Your task to perform on an android device: toggle show notifications on the lock screen Image 0: 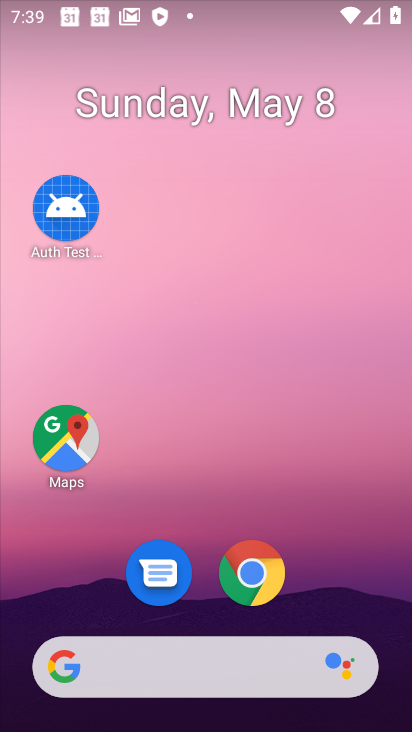
Step 0: click (159, 41)
Your task to perform on an android device: toggle show notifications on the lock screen Image 1: 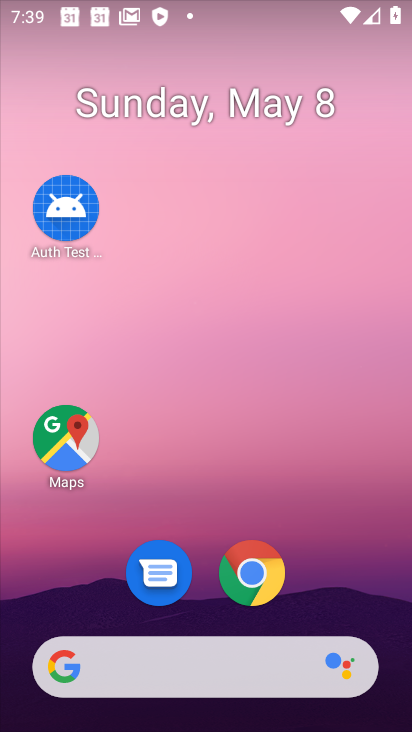
Step 1: drag from (191, 38) to (228, 12)
Your task to perform on an android device: toggle show notifications on the lock screen Image 2: 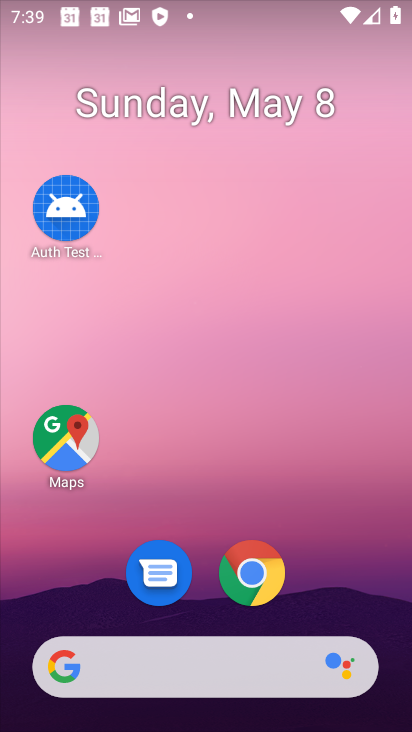
Step 2: drag from (305, 480) to (169, 40)
Your task to perform on an android device: toggle show notifications on the lock screen Image 3: 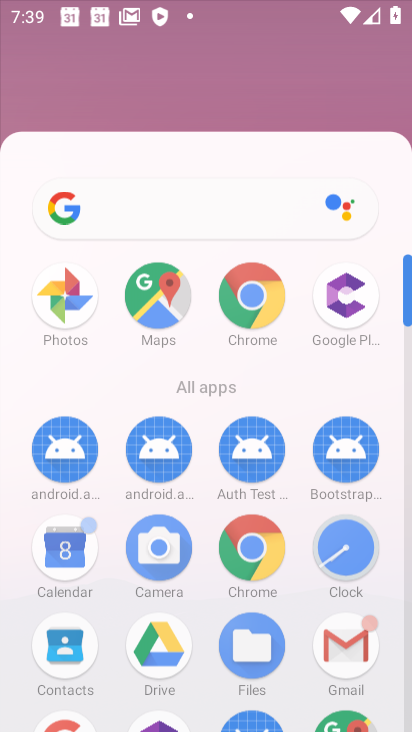
Step 3: drag from (271, 306) to (137, 12)
Your task to perform on an android device: toggle show notifications on the lock screen Image 4: 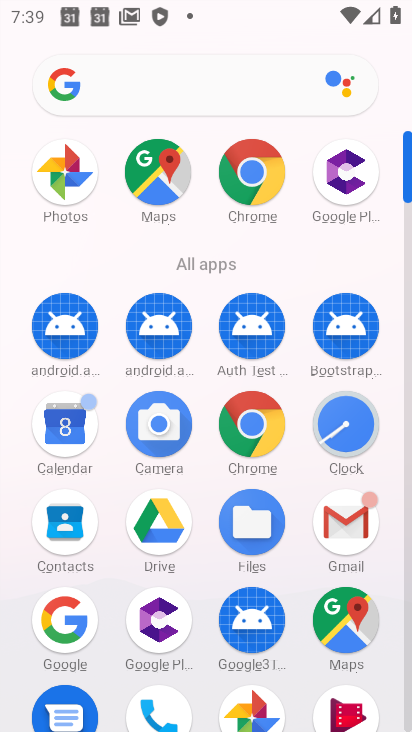
Step 4: click (193, 29)
Your task to perform on an android device: toggle show notifications on the lock screen Image 5: 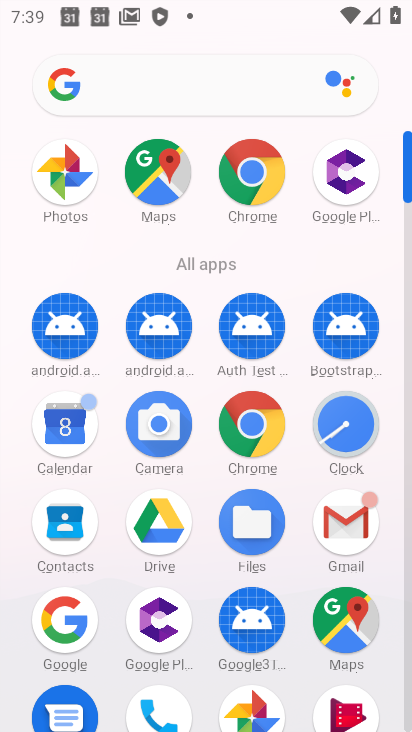
Step 5: drag from (311, 578) to (164, 295)
Your task to perform on an android device: toggle show notifications on the lock screen Image 6: 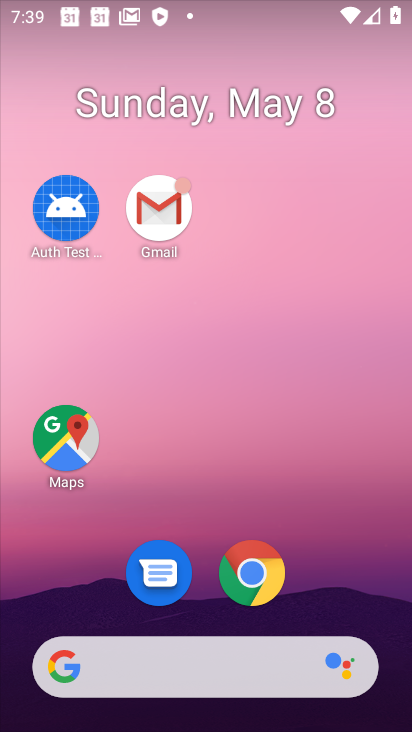
Step 6: drag from (299, 602) to (223, 112)
Your task to perform on an android device: toggle show notifications on the lock screen Image 7: 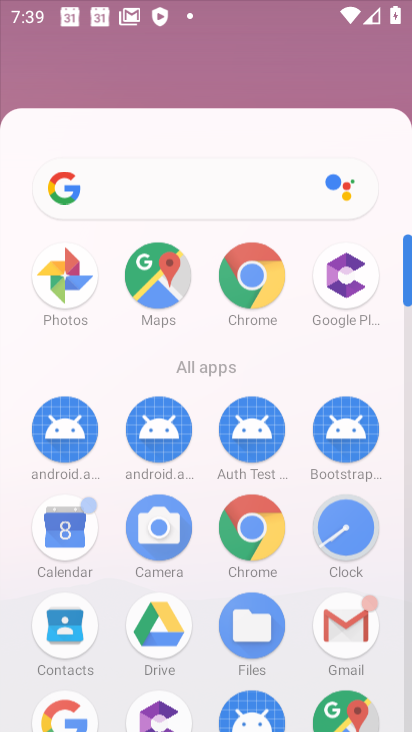
Step 7: drag from (233, 460) to (283, 147)
Your task to perform on an android device: toggle show notifications on the lock screen Image 8: 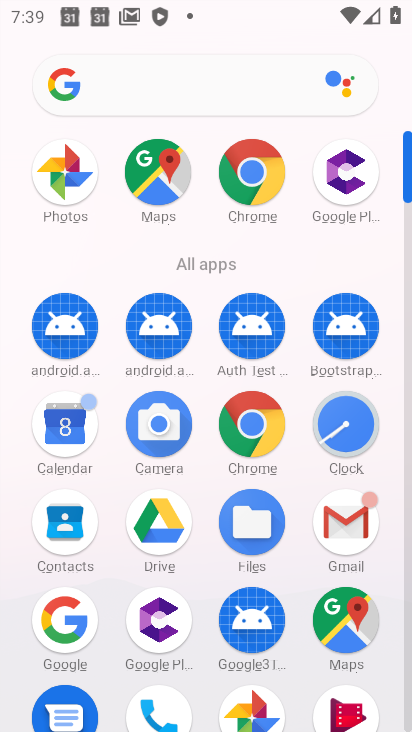
Step 8: drag from (284, 569) to (140, 41)
Your task to perform on an android device: toggle show notifications on the lock screen Image 9: 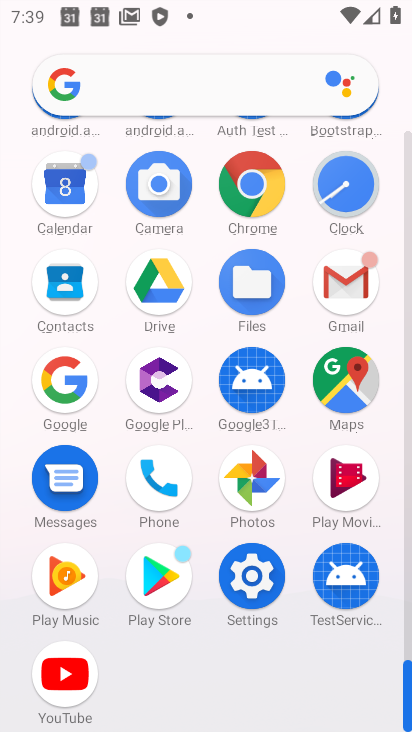
Step 9: drag from (212, 606) to (236, 58)
Your task to perform on an android device: toggle show notifications on the lock screen Image 10: 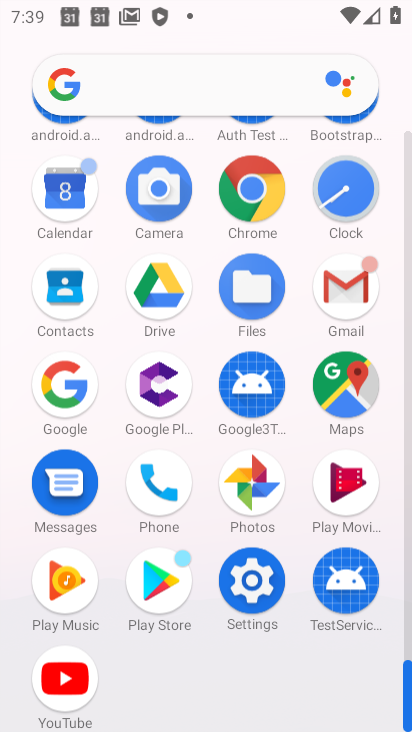
Step 10: drag from (268, 533) to (169, 2)
Your task to perform on an android device: toggle show notifications on the lock screen Image 11: 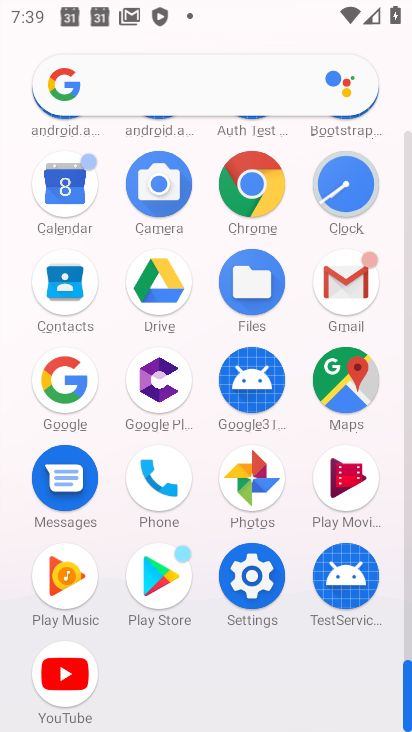
Step 11: click (254, 538)
Your task to perform on an android device: toggle show notifications on the lock screen Image 12: 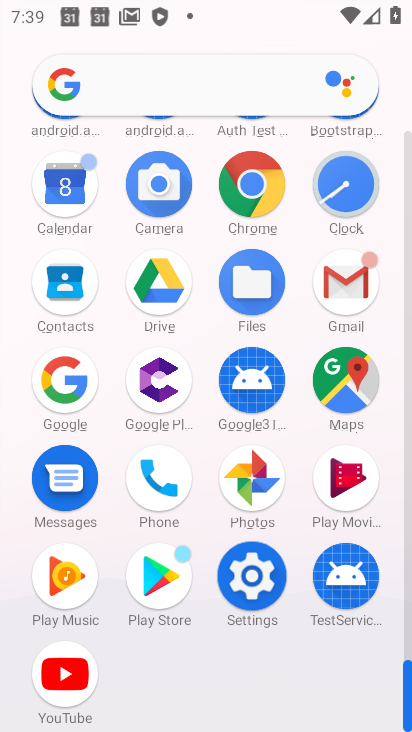
Step 12: click (253, 554)
Your task to perform on an android device: toggle show notifications on the lock screen Image 13: 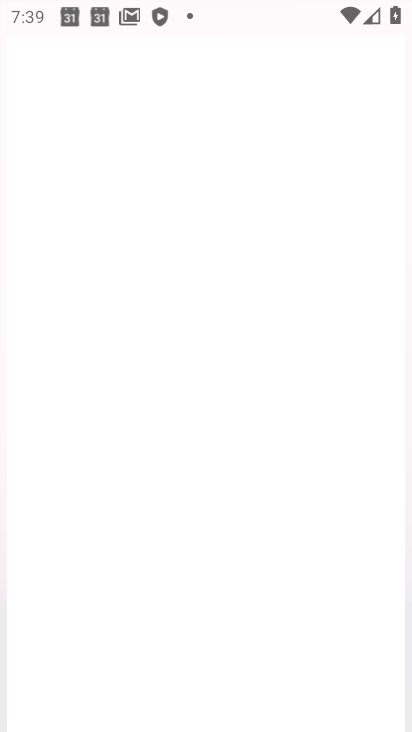
Step 13: click (253, 574)
Your task to perform on an android device: toggle show notifications on the lock screen Image 14: 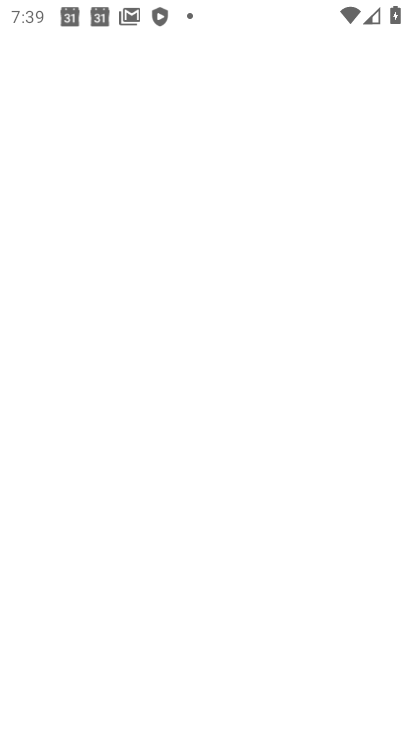
Step 14: click (253, 576)
Your task to perform on an android device: toggle show notifications on the lock screen Image 15: 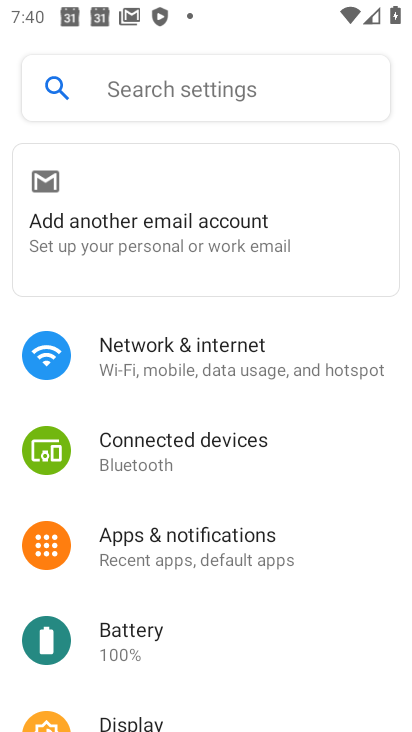
Step 15: drag from (201, 572) to (169, 246)
Your task to perform on an android device: toggle show notifications on the lock screen Image 16: 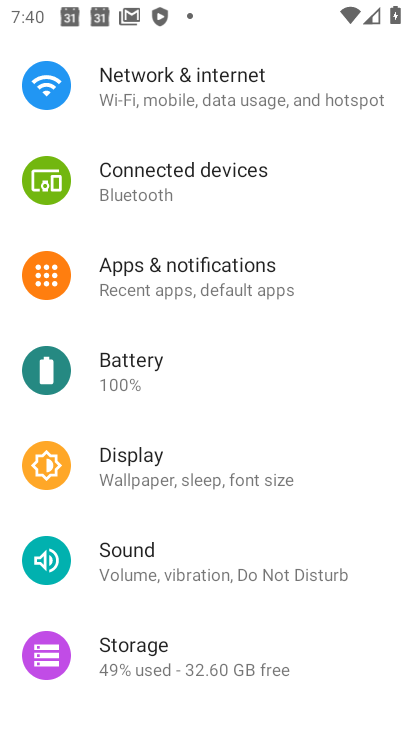
Step 16: click (174, 271)
Your task to perform on an android device: toggle show notifications on the lock screen Image 17: 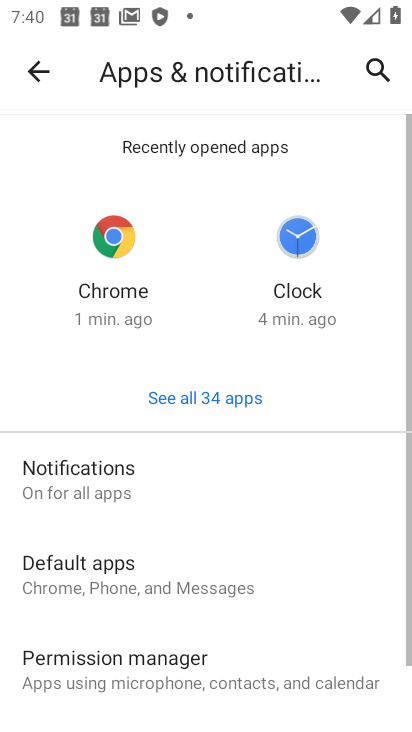
Step 17: click (80, 484)
Your task to perform on an android device: toggle show notifications on the lock screen Image 18: 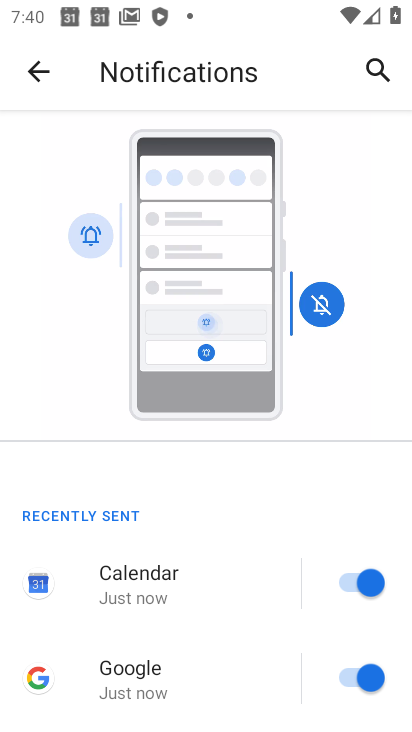
Step 18: drag from (171, 292) to (132, 27)
Your task to perform on an android device: toggle show notifications on the lock screen Image 19: 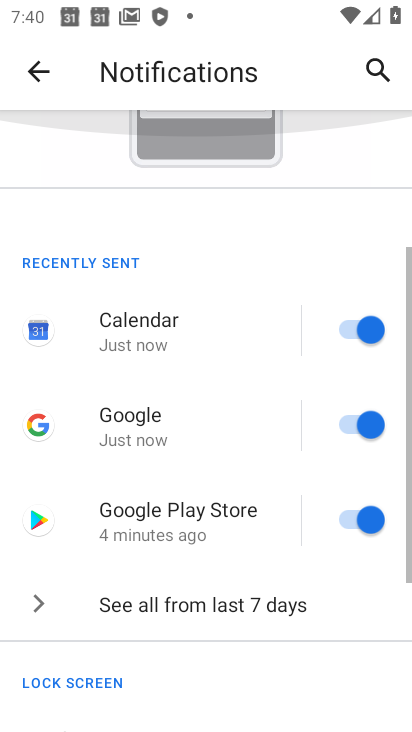
Step 19: drag from (167, 496) to (152, 71)
Your task to perform on an android device: toggle show notifications on the lock screen Image 20: 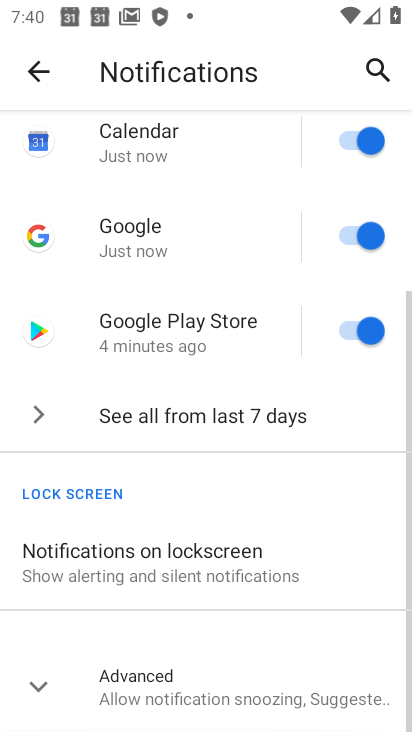
Step 20: drag from (174, 534) to (198, 252)
Your task to perform on an android device: toggle show notifications on the lock screen Image 21: 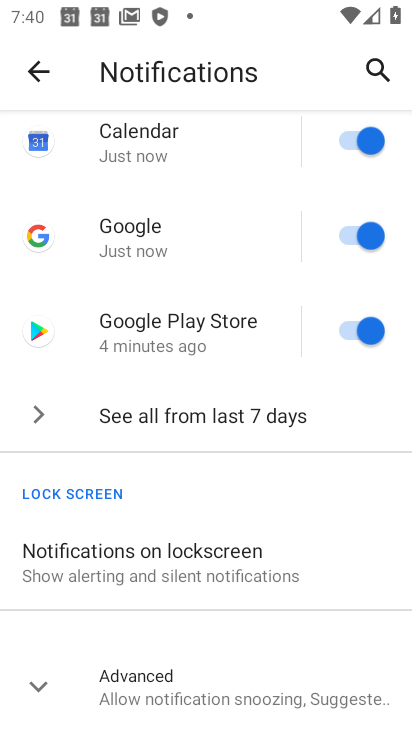
Step 21: click (143, 553)
Your task to perform on an android device: toggle show notifications on the lock screen Image 22: 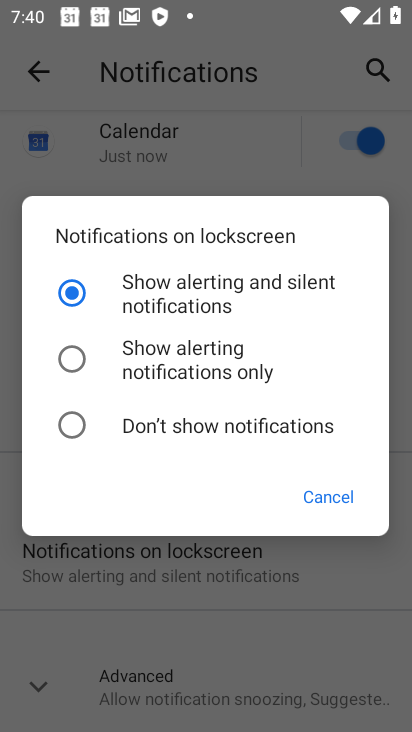
Step 22: click (329, 491)
Your task to perform on an android device: toggle show notifications on the lock screen Image 23: 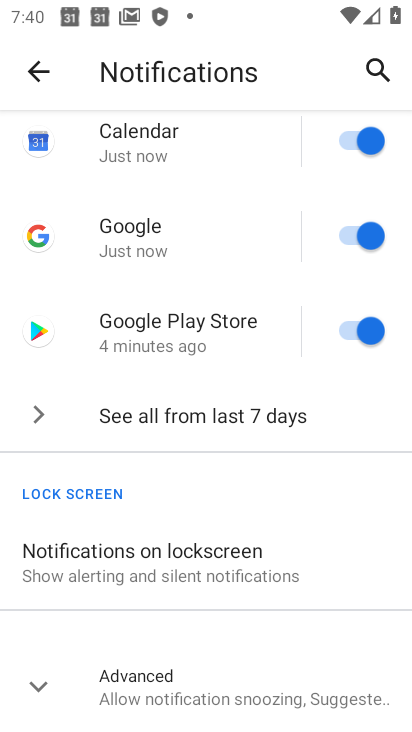
Step 23: task complete